Your task to perform on an android device: Go to location settings Image 0: 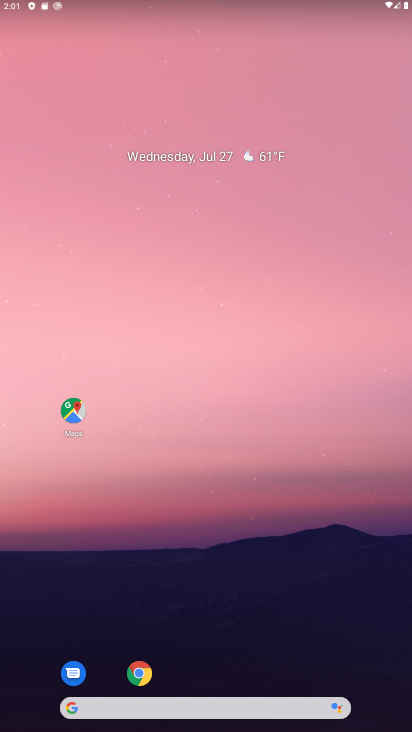
Step 0: drag from (200, 667) to (156, 116)
Your task to perform on an android device: Go to location settings Image 1: 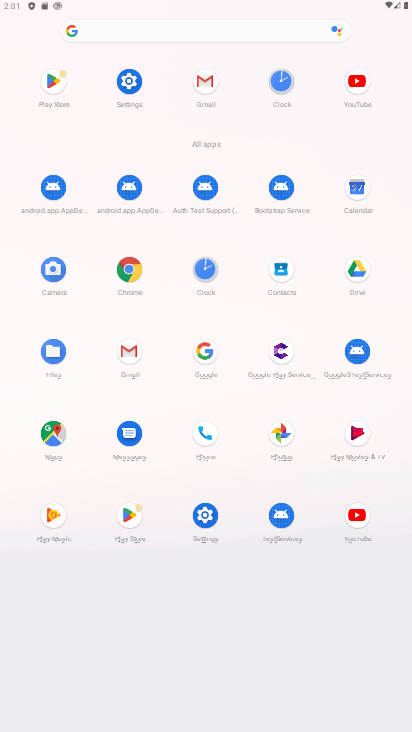
Step 1: click (125, 80)
Your task to perform on an android device: Go to location settings Image 2: 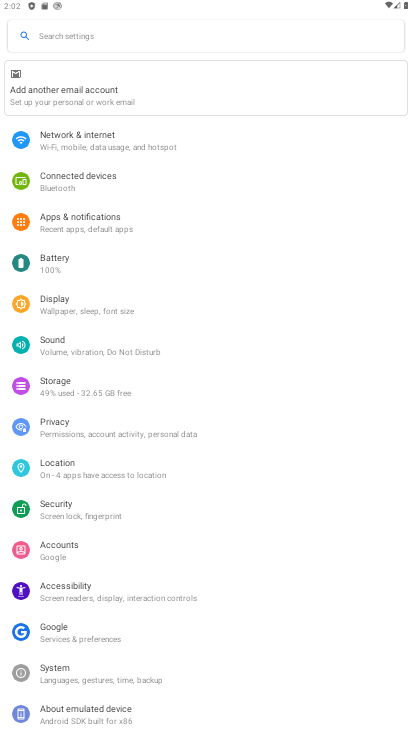
Step 2: click (58, 451)
Your task to perform on an android device: Go to location settings Image 3: 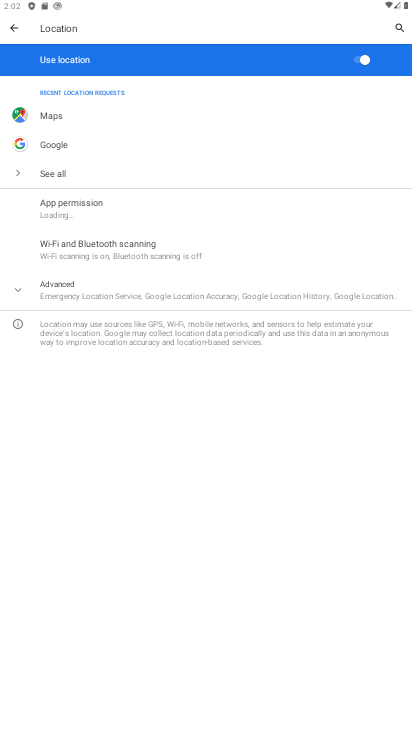
Step 3: task complete